Your task to perform on an android device: turn on priority inbox in the gmail app Image 0: 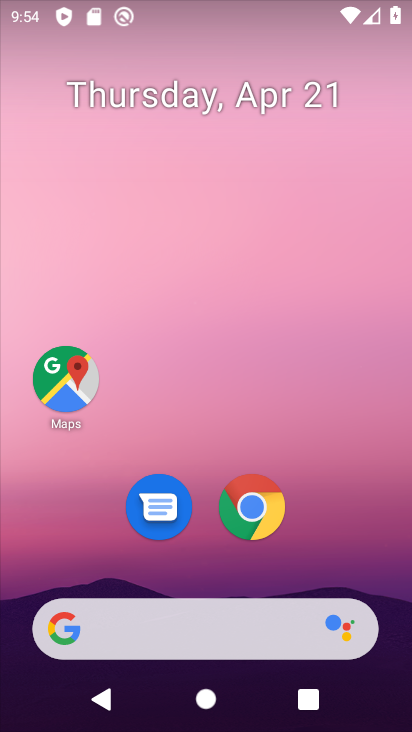
Step 0: drag from (180, 597) to (203, 227)
Your task to perform on an android device: turn on priority inbox in the gmail app Image 1: 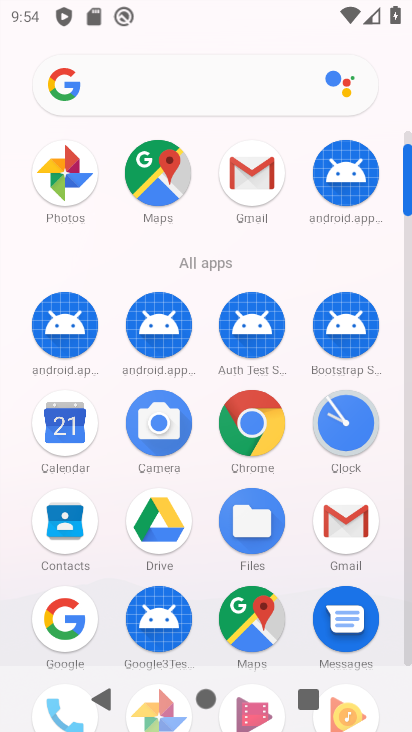
Step 1: click (338, 531)
Your task to perform on an android device: turn on priority inbox in the gmail app Image 2: 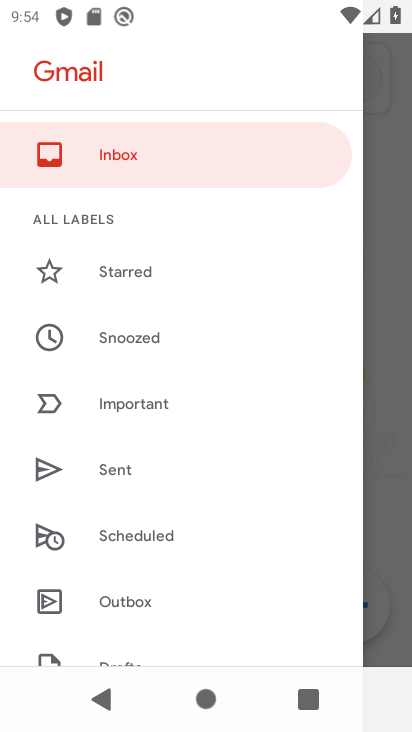
Step 2: drag from (146, 518) to (183, 235)
Your task to perform on an android device: turn on priority inbox in the gmail app Image 3: 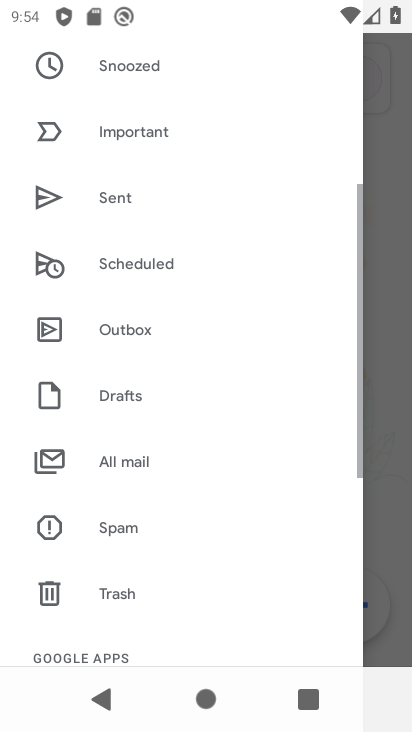
Step 3: drag from (148, 526) to (181, 311)
Your task to perform on an android device: turn on priority inbox in the gmail app Image 4: 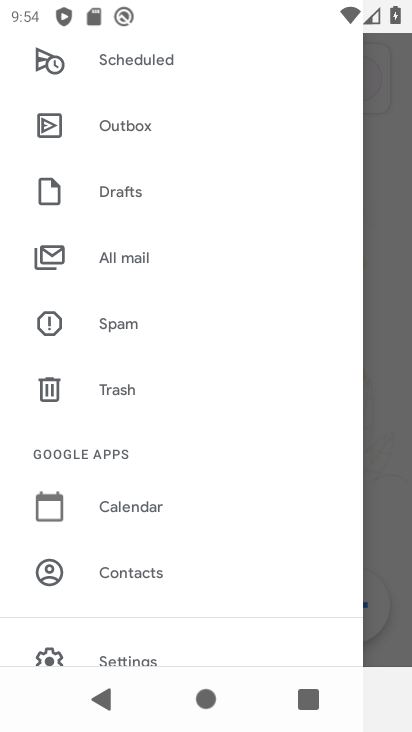
Step 4: click (139, 662)
Your task to perform on an android device: turn on priority inbox in the gmail app Image 5: 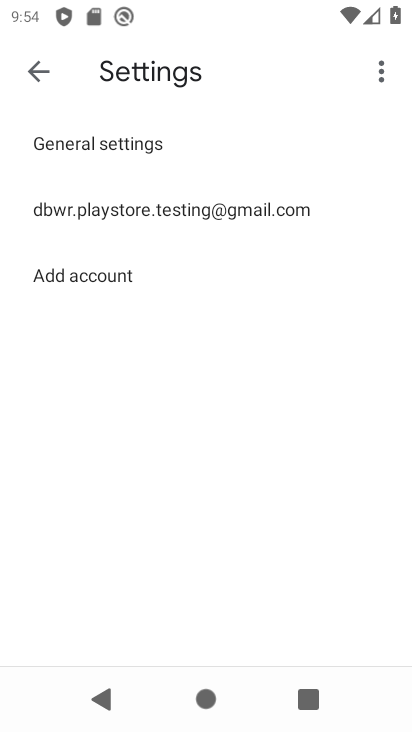
Step 5: click (166, 190)
Your task to perform on an android device: turn on priority inbox in the gmail app Image 6: 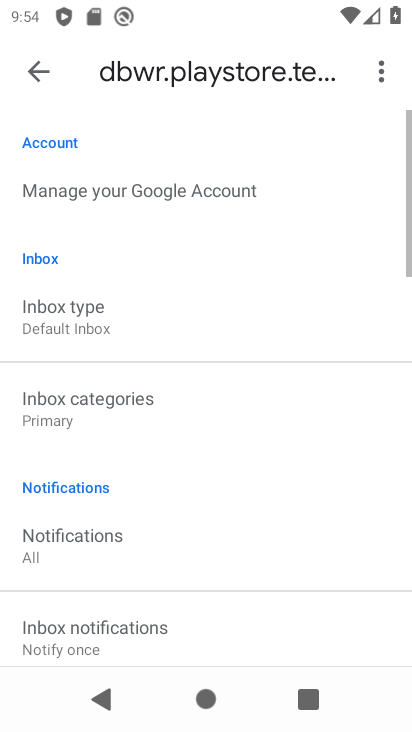
Step 6: click (100, 307)
Your task to perform on an android device: turn on priority inbox in the gmail app Image 7: 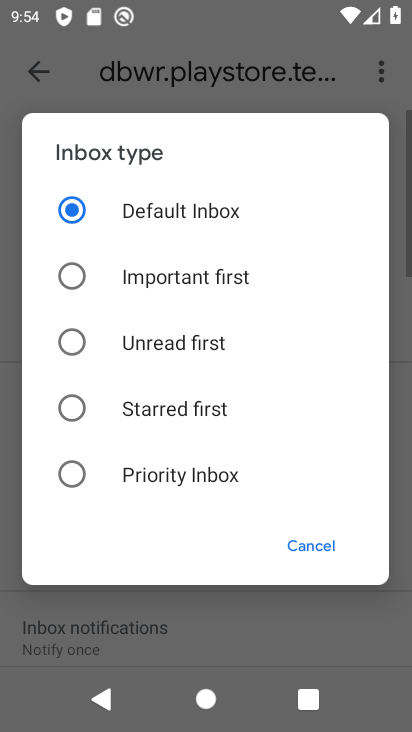
Step 7: click (166, 463)
Your task to perform on an android device: turn on priority inbox in the gmail app Image 8: 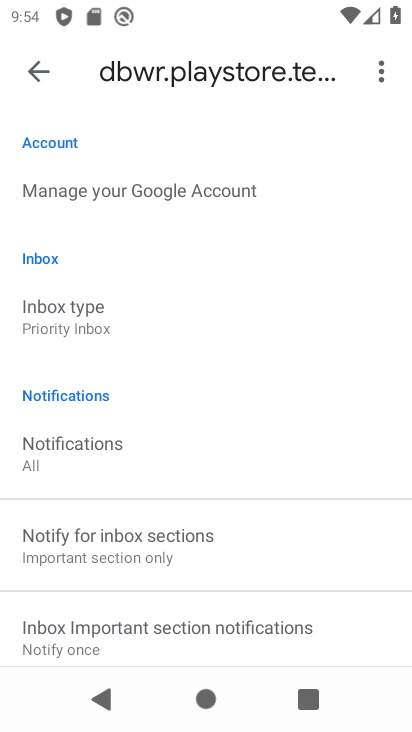
Step 8: task complete